Your task to perform on an android device: Open the web browser Image 0: 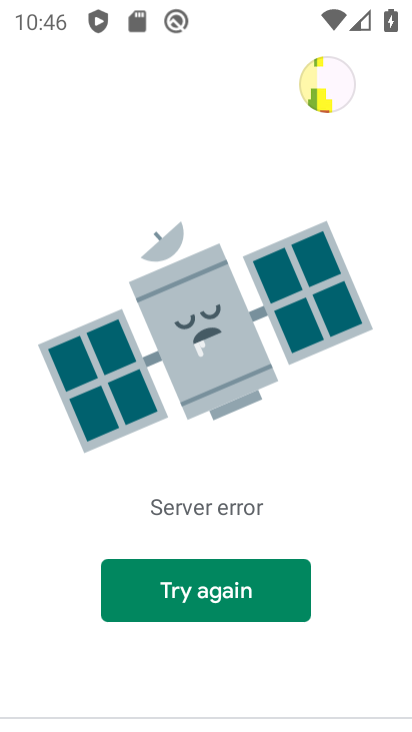
Step 0: press home button
Your task to perform on an android device: Open the web browser Image 1: 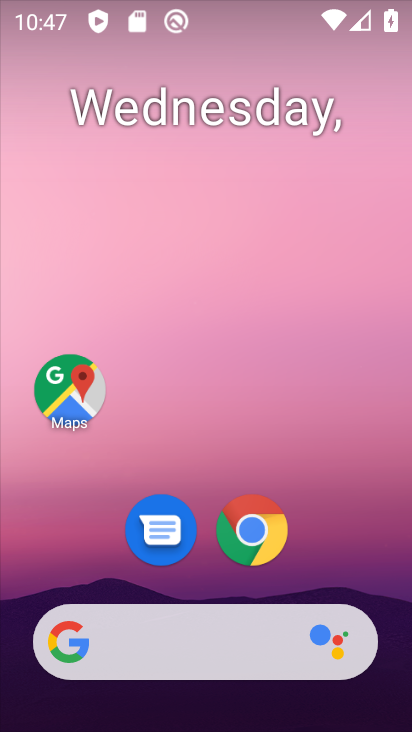
Step 1: drag from (317, 544) to (323, 52)
Your task to perform on an android device: Open the web browser Image 2: 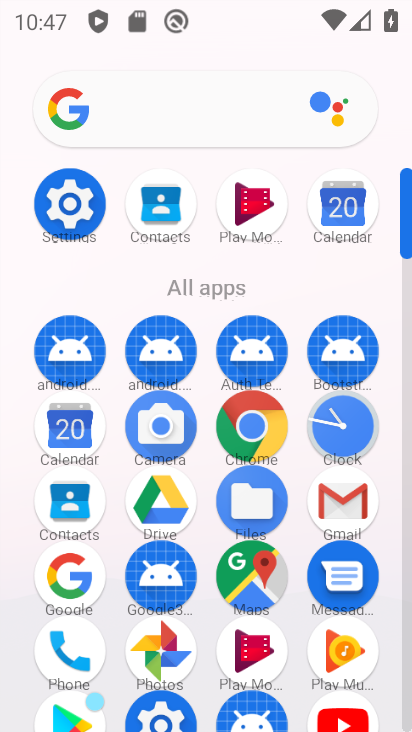
Step 2: click (255, 415)
Your task to perform on an android device: Open the web browser Image 3: 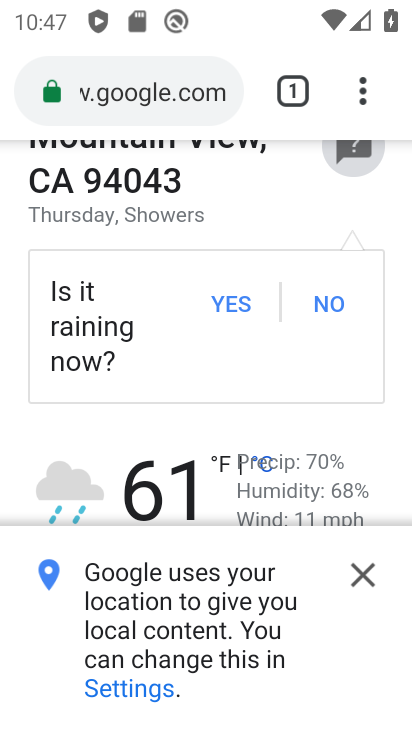
Step 3: click (164, 90)
Your task to perform on an android device: Open the web browser Image 4: 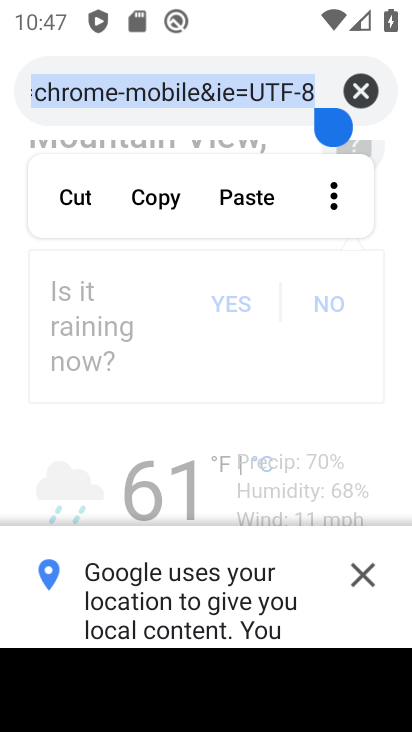
Step 4: click (376, 94)
Your task to perform on an android device: Open the web browser Image 5: 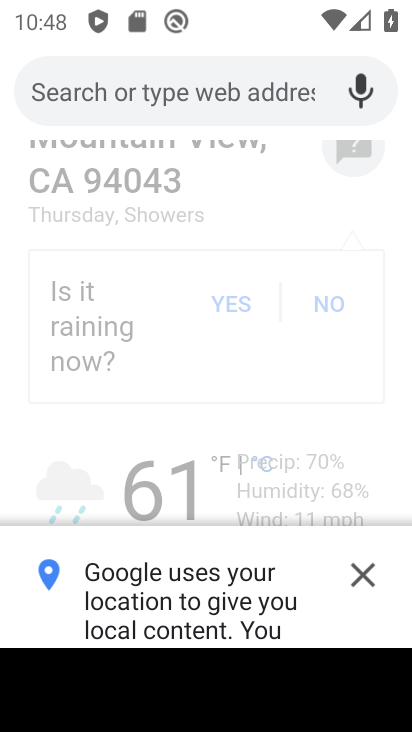
Step 5: type "web browser"
Your task to perform on an android device: Open the web browser Image 6: 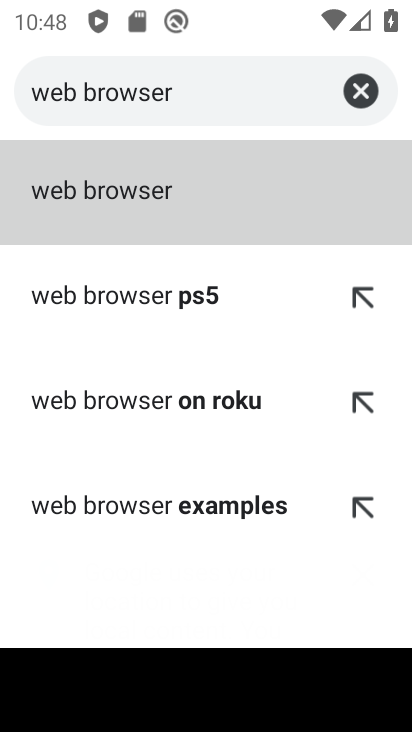
Step 6: click (138, 193)
Your task to perform on an android device: Open the web browser Image 7: 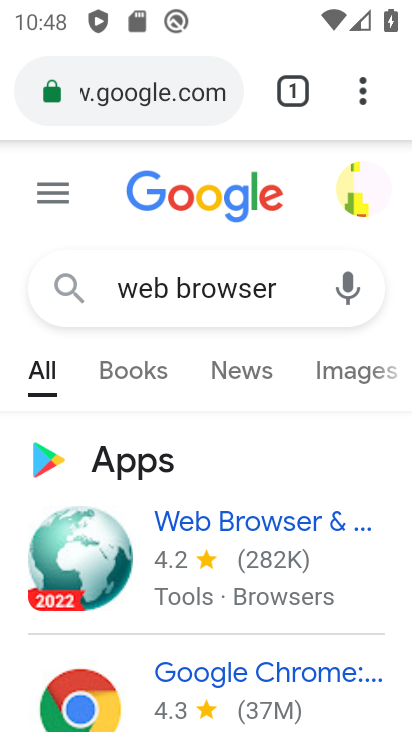
Step 7: task complete